Your task to perform on an android device: What's on my calendar tomorrow? Image 0: 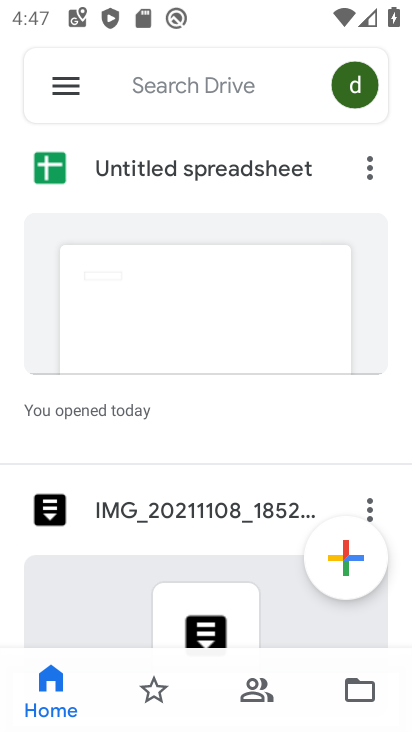
Step 0: press home button
Your task to perform on an android device: What's on my calendar tomorrow? Image 1: 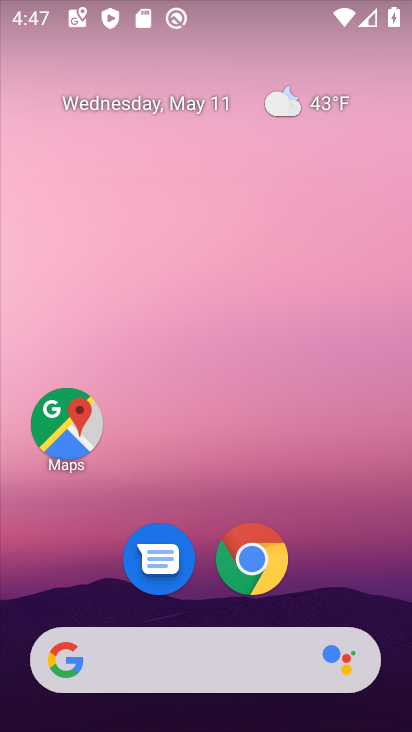
Step 1: drag from (205, 501) to (263, 198)
Your task to perform on an android device: What's on my calendar tomorrow? Image 2: 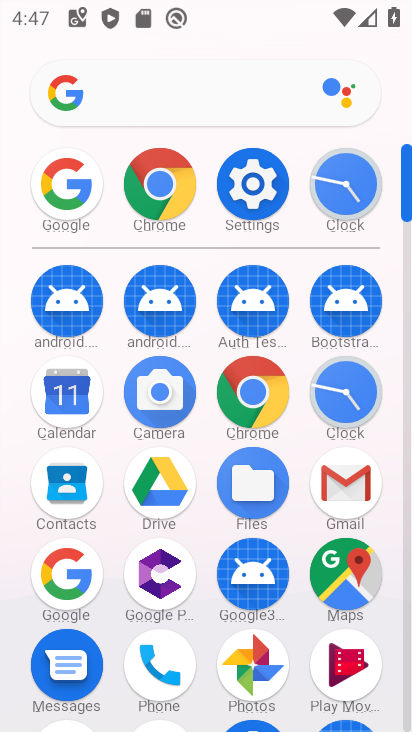
Step 2: click (63, 418)
Your task to perform on an android device: What's on my calendar tomorrow? Image 3: 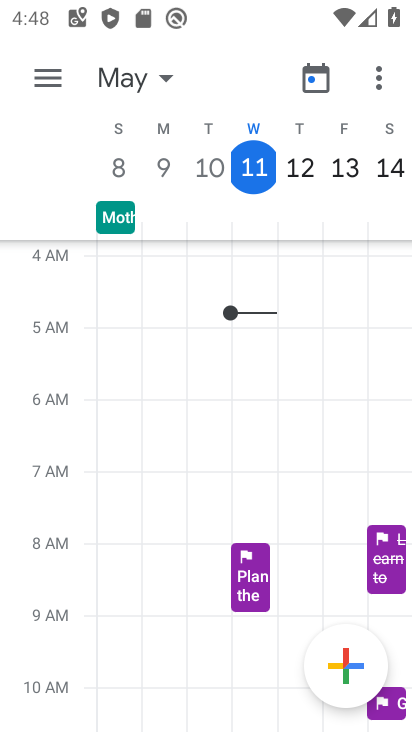
Step 3: click (46, 84)
Your task to perform on an android device: What's on my calendar tomorrow? Image 4: 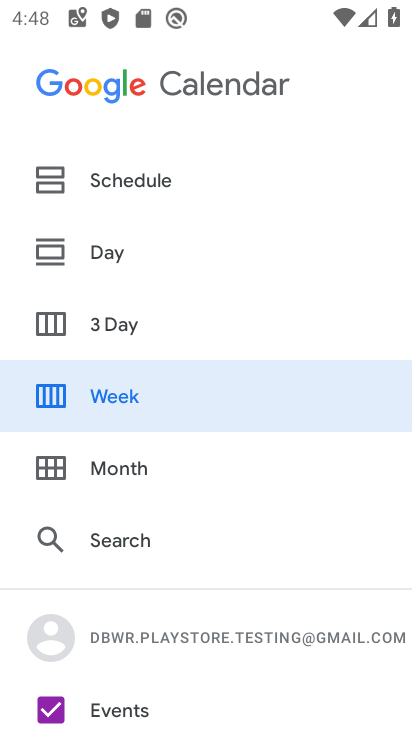
Step 4: click (124, 244)
Your task to perform on an android device: What's on my calendar tomorrow? Image 5: 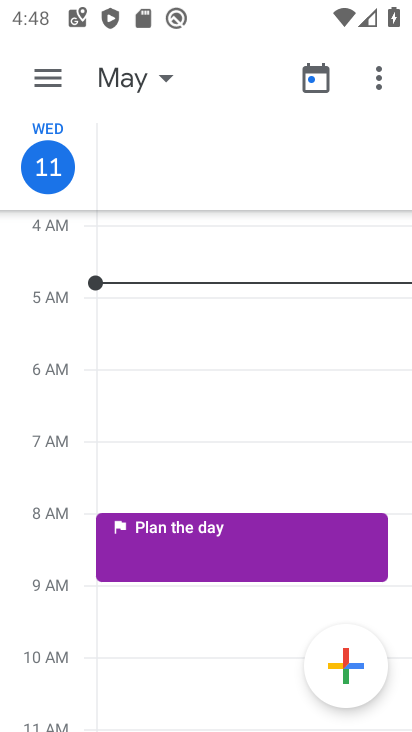
Step 5: click (139, 93)
Your task to perform on an android device: What's on my calendar tomorrow? Image 6: 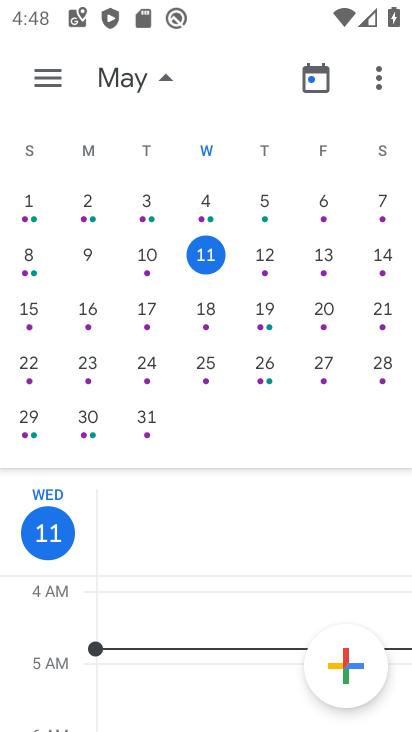
Step 6: click (200, 260)
Your task to perform on an android device: What's on my calendar tomorrow? Image 7: 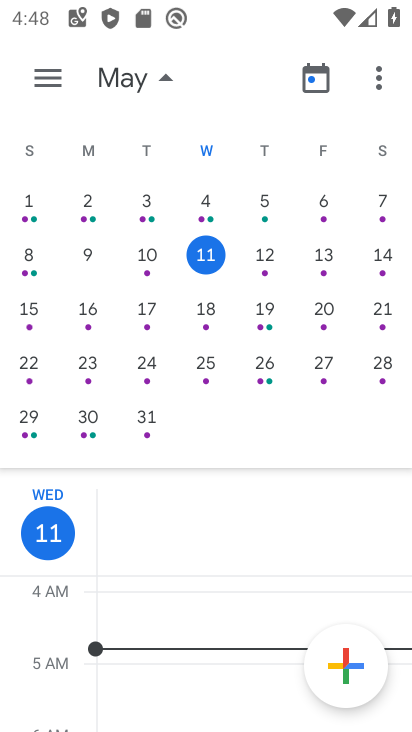
Step 7: click (263, 264)
Your task to perform on an android device: What's on my calendar tomorrow? Image 8: 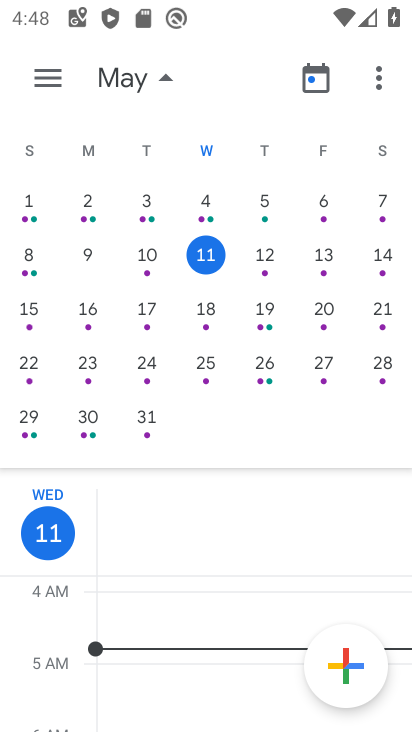
Step 8: click (263, 264)
Your task to perform on an android device: What's on my calendar tomorrow? Image 9: 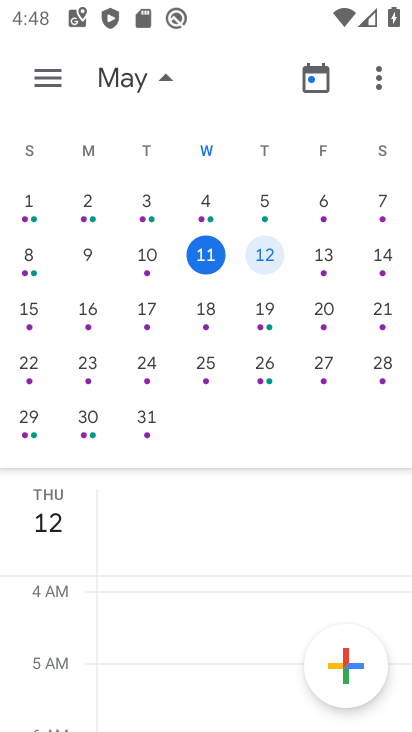
Step 9: click (44, 78)
Your task to perform on an android device: What's on my calendar tomorrow? Image 10: 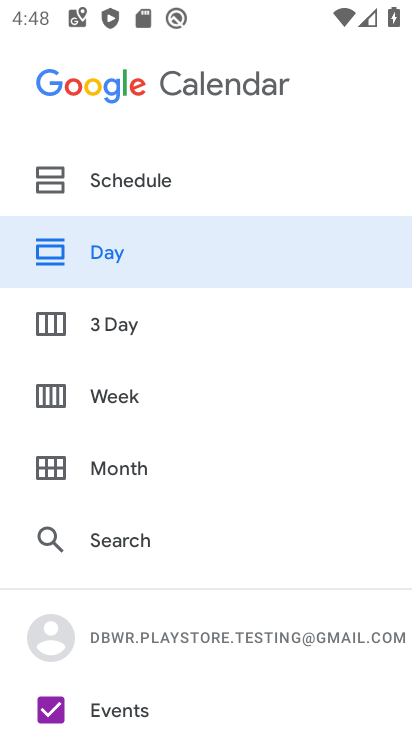
Step 10: click (123, 192)
Your task to perform on an android device: What's on my calendar tomorrow? Image 11: 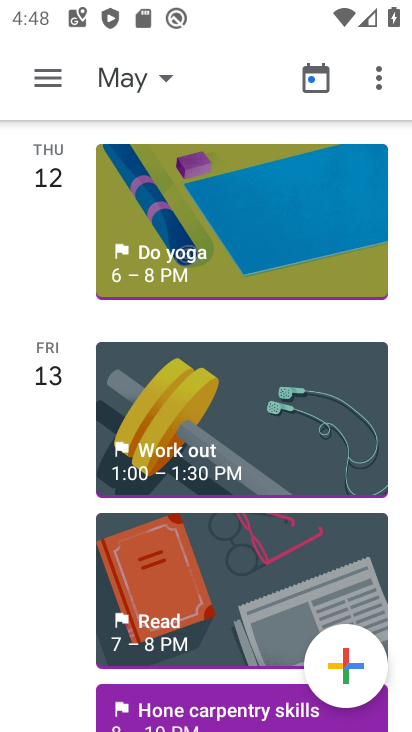
Step 11: task complete